Your task to perform on an android device: Open maps Image 0: 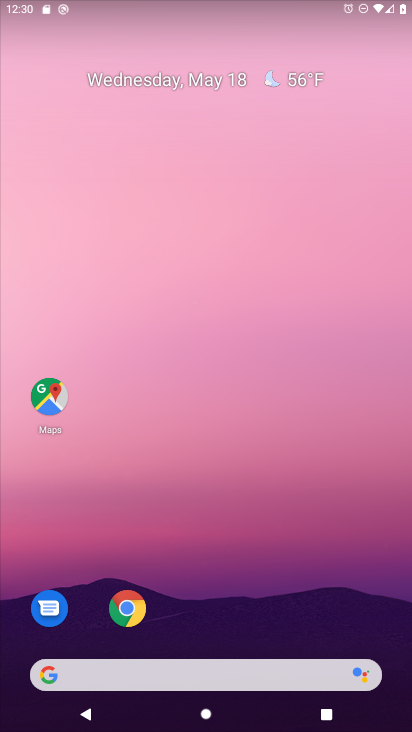
Step 0: drag from (289, 684) to (264, 234)
Your task to perform on an android device: Open maps Image 1: 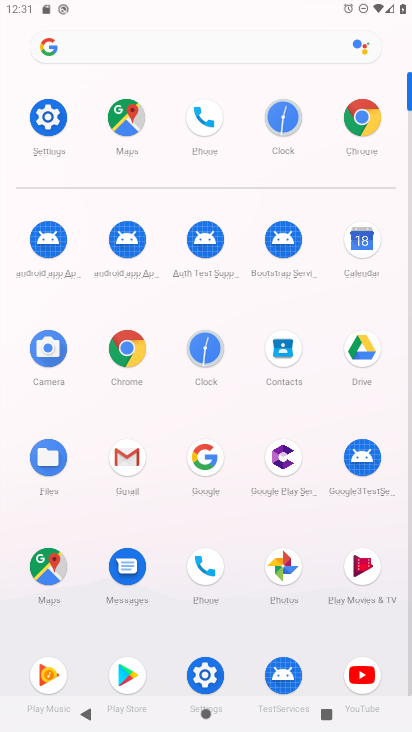
Step 1: click (123, 137)
Your task to perform on an android device: Open maps Image 2: 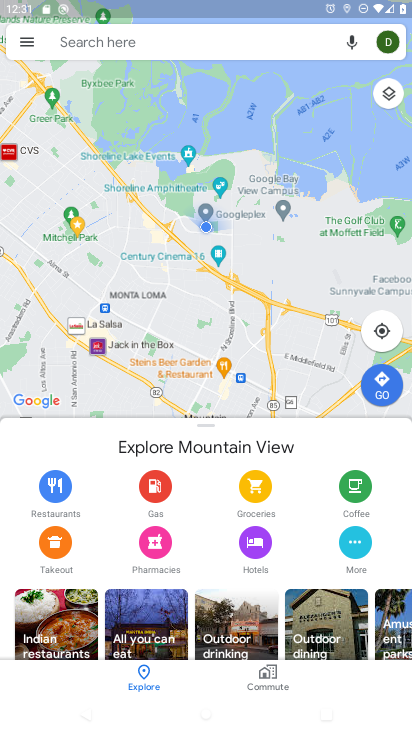
Step 2: task complete